Your task to perform on an android device: toggle wifi Image 0: 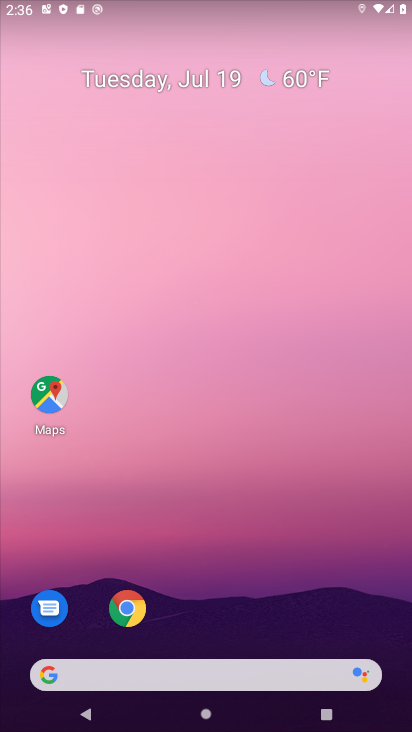
Step 0: drag from (265, 415) to (230, 2)
Your task to perform on an android device: toggle wifi Image 1: 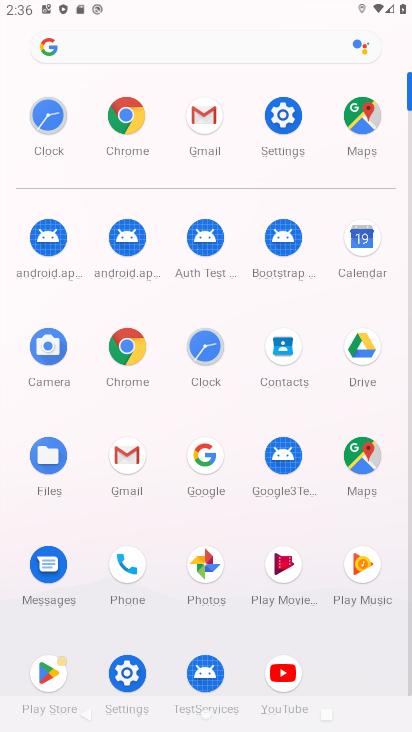
Step 1: click (280, 114)
Your task to perform on an android device: toggle wifi Image 2: 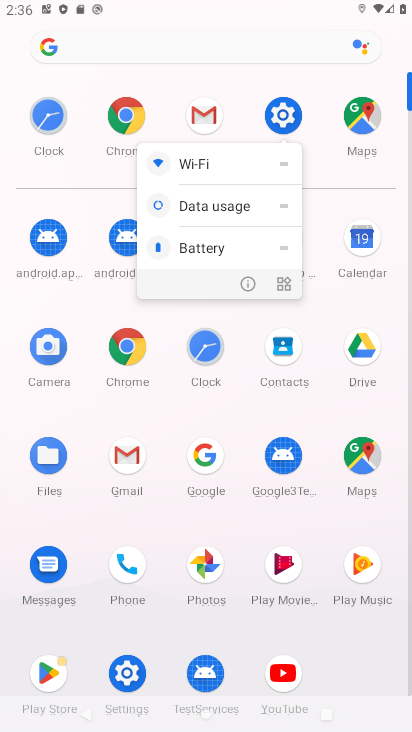
Step 2: click (280, 114)
Your task to perform on an android device: toggle wifi Image 3: 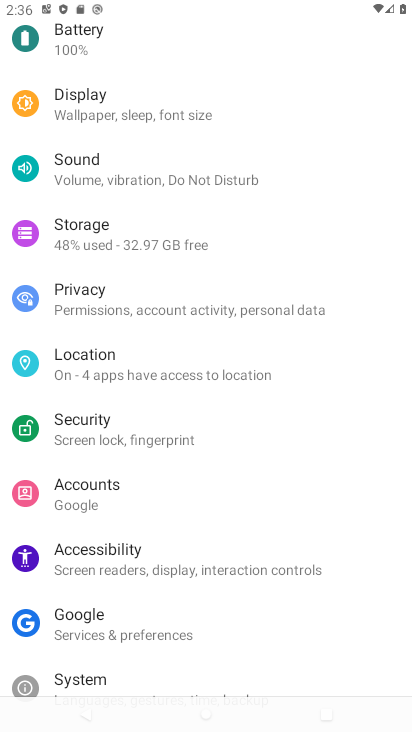
Step 3: drag from (100, 102) to (226, 597)
Your task to perform on an android device: toggle wifi Image 4: 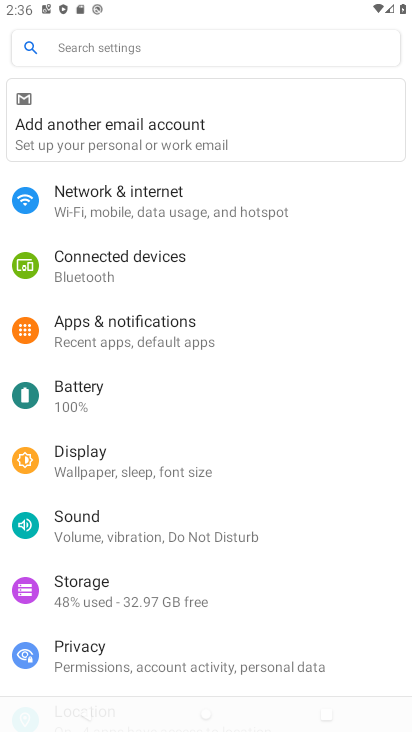
Step 4: click (102, 210)
Your task to perform on an android device: toggle wifi Image 5: 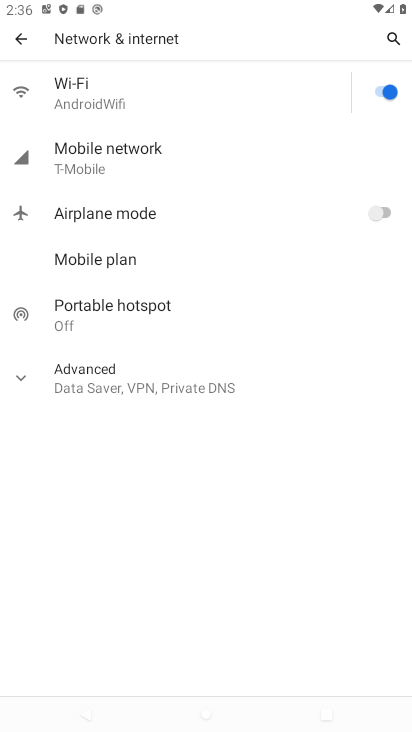
Step 5: click (381, 94)
Your task to perform on an android device: toggle wifi Image 6: 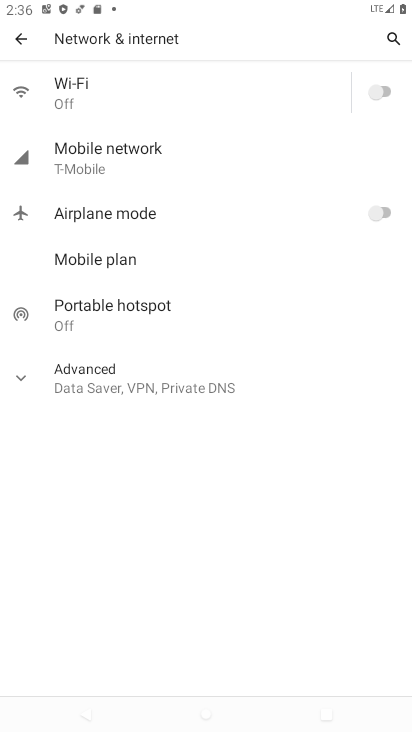
Step 6: task complete